Your task to perform on an android device: change the clock style Image 0: 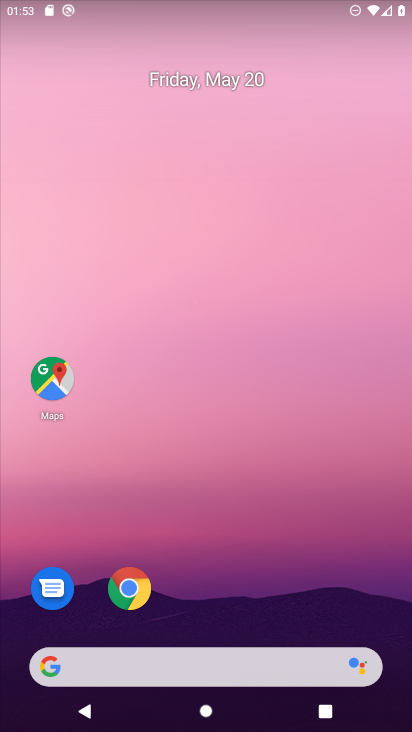
Step 0: drag from (376, 627) to (339, 143)
Your task to perform on an android device: change the clock style Image 1: 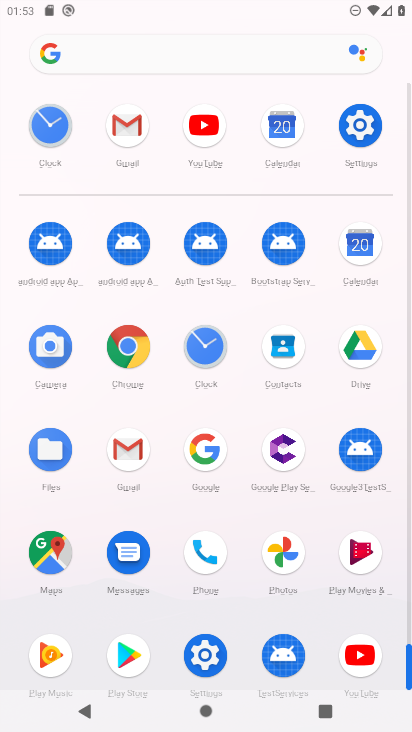
Step 1: click (202, 347)
Your task to perform on an android device: change the clock style Image 2: 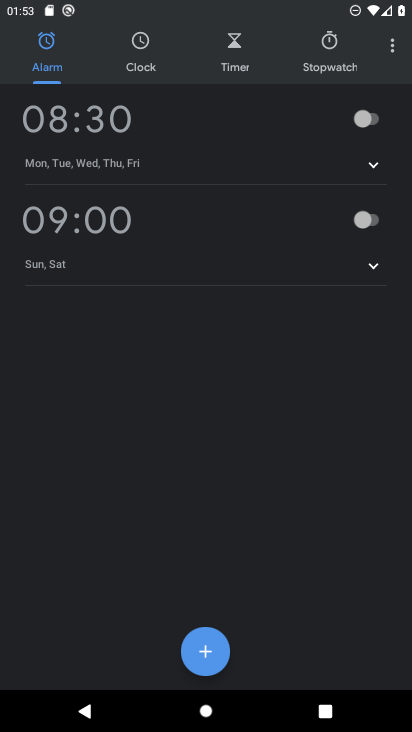
Step 2: click (392, 52)
Your task to perform on an android device: change the clock style Image 3: 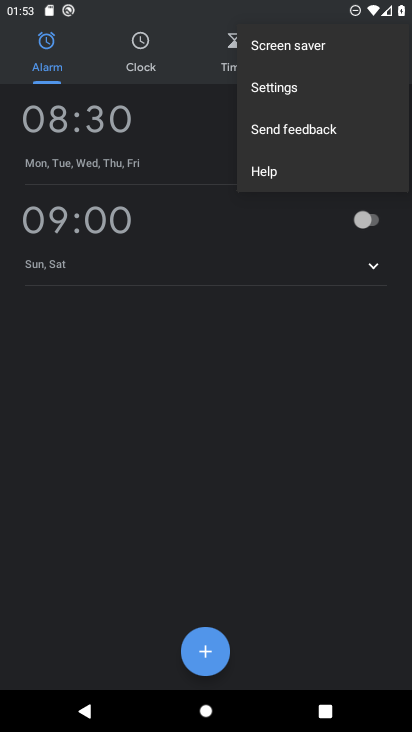
Step 3: click (275, 90)
Your task to perform on an android device: change the clock style Image 4: 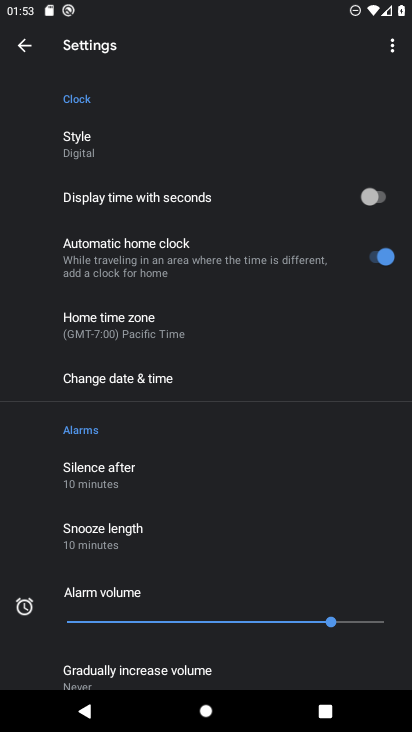
Step 4: click (83, 138)
Your task to perform on an android device: change the clock style Image 5: 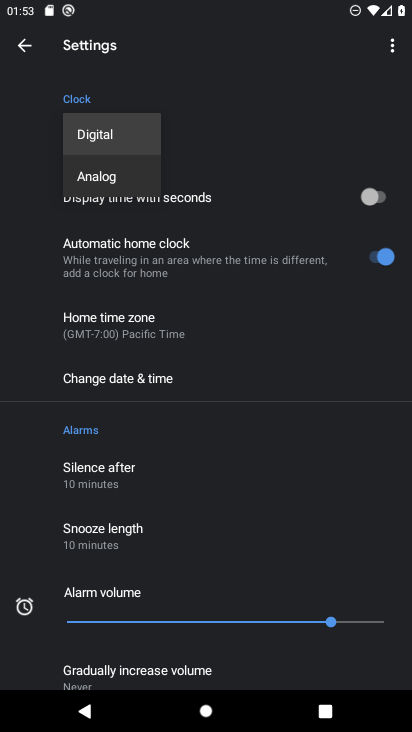
Step 5: click (103, 177)
Your task to perform on an android device: change the clock style Image 6: 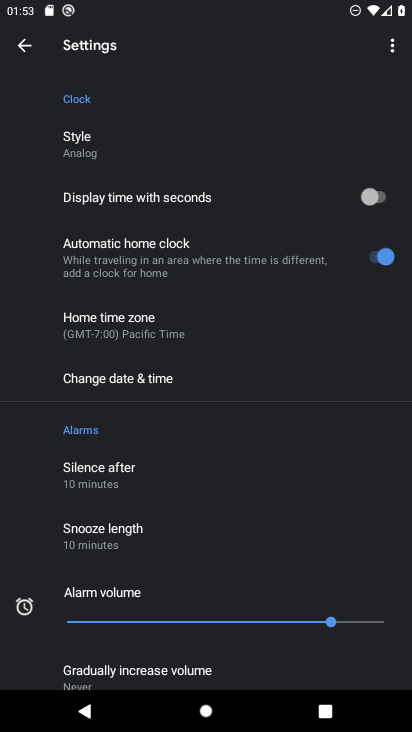
Step 6: task complete